Your task to perform on an android device: Turn off the flashlight Image 0: 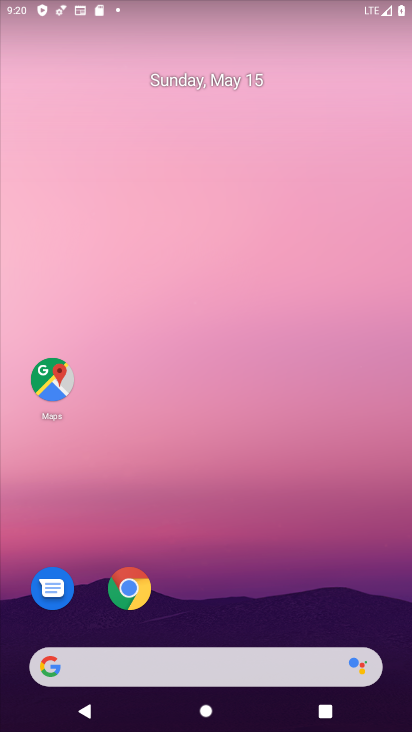
Step 0: drag from (245, 557) to (283, 27)
Your task to perform on an android device: Turn off the flashlight Image 1: 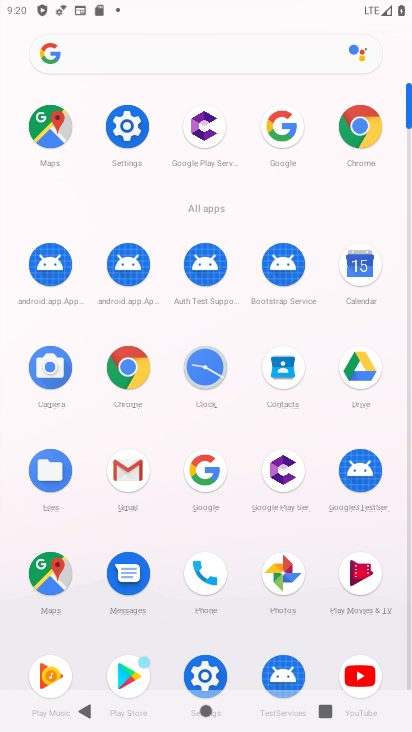
Step 1: click (122, 123)
Your task to perform on an android device: Turn off the flashlight Image 2: 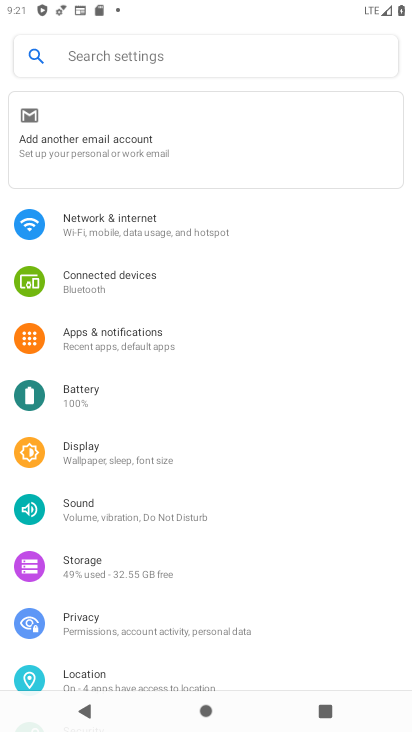
Step 2: drag from (239, 603) to (261, 212)
Your task to perform on an android device: Turn off the flashlight Image 3: 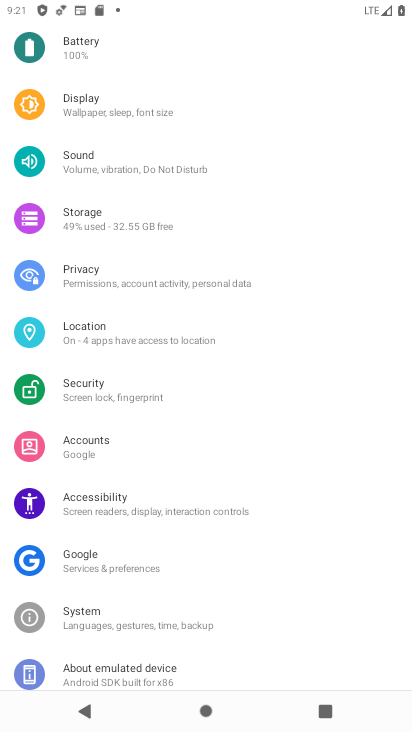
Step 3: click (140, 497)
Your task to perform on an android device: Turn off the flashlight Image 4: 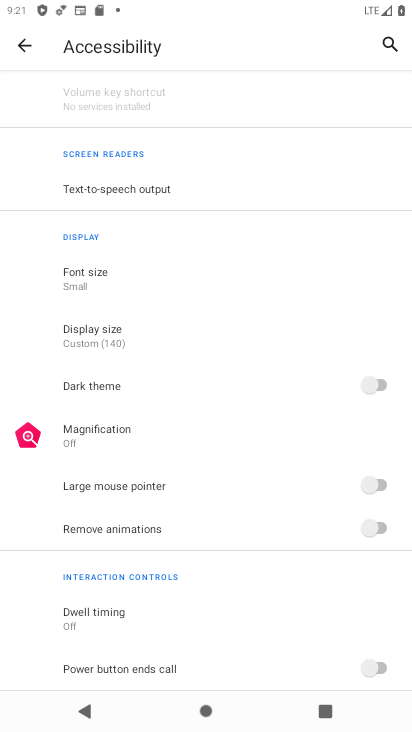
Step 4: task complete